Your task to perform on an android device: Open Yahoo.com Image 0: 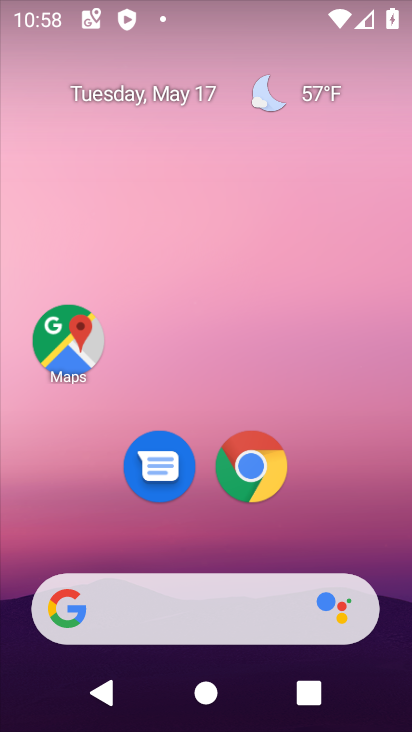
Step 0: click (265, 461)
Your task to perform on an android device: Open Yahoo.com Image 1: 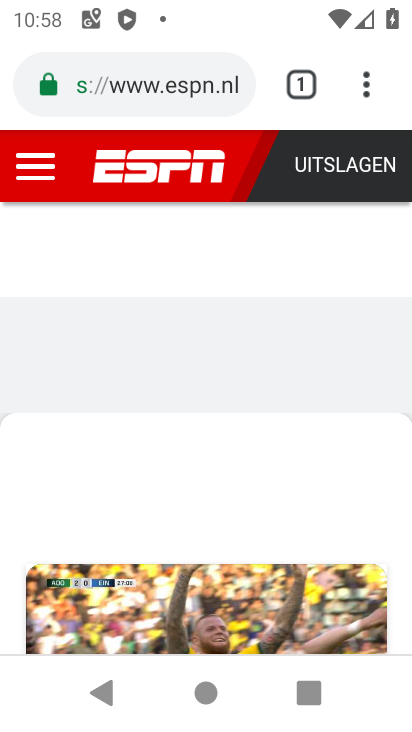
Step 1: click (298, 94)
Your task to perform on an android device: Open Yahoo.com Image 2: 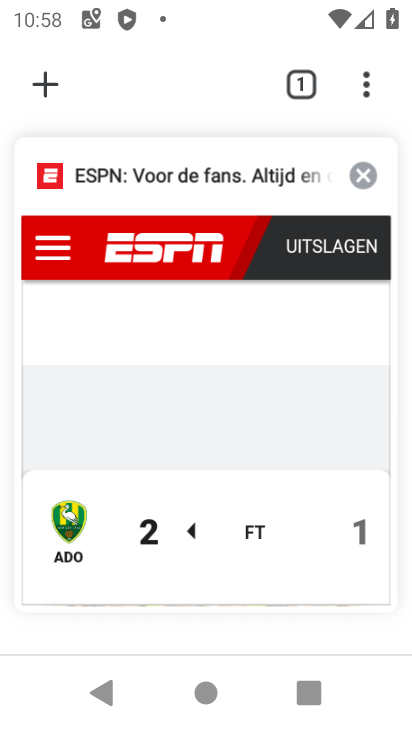
Step 2: click (49, 82)
Your task to perform on an android device: Open Yahoo.com Image 3: 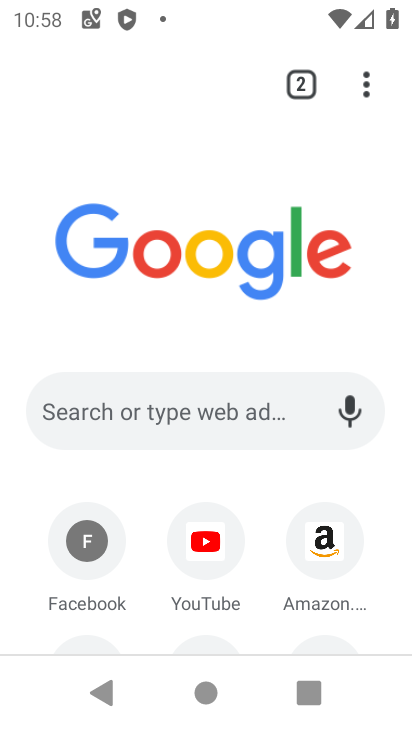
Step 3: drag from (148, 599) to (98, 233)
Your task to perform on an android device: Open Yahoo.com Image 4: 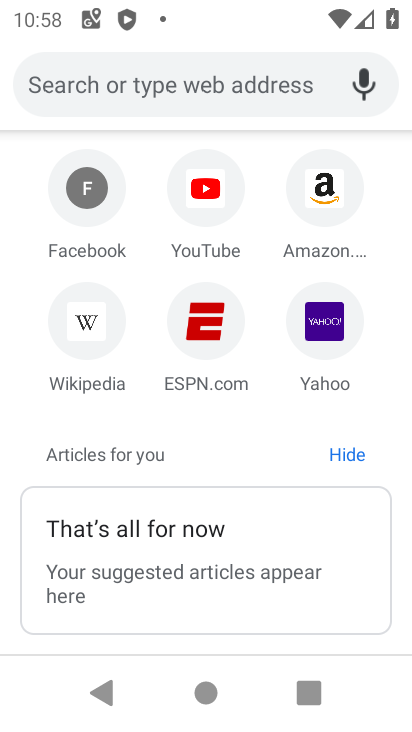
Step 4: click (320, 330)
Your task to perform on an android device: Open Yahoo.com Image 5: 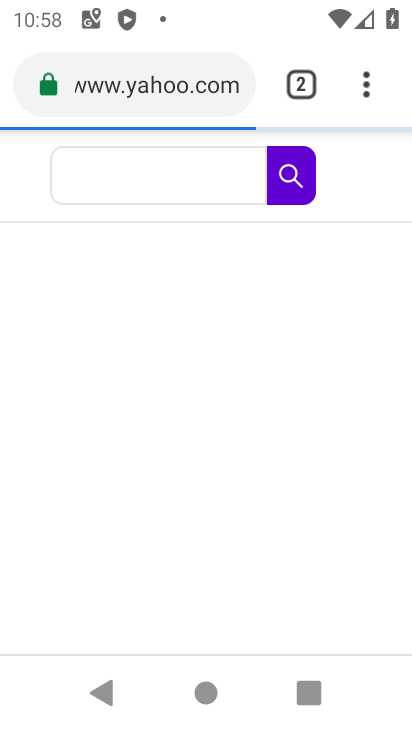
Step 5: task complete